Your task to perform on an android device: See recent photos Image 0: 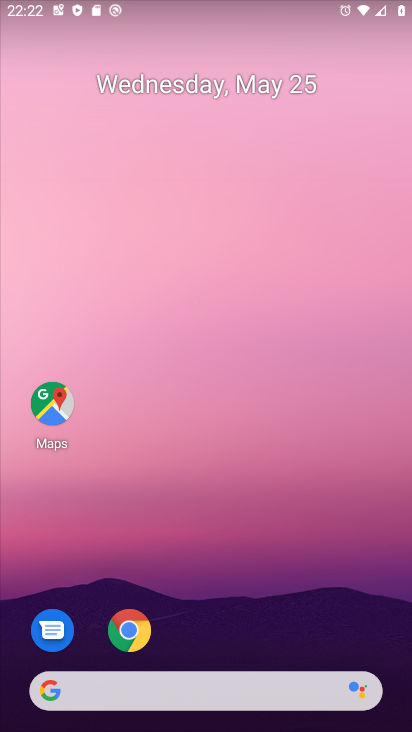
Step 0: drag from (227, 641) to (239, 138)
Your task to perform on an android device: See recent photos Image 1: 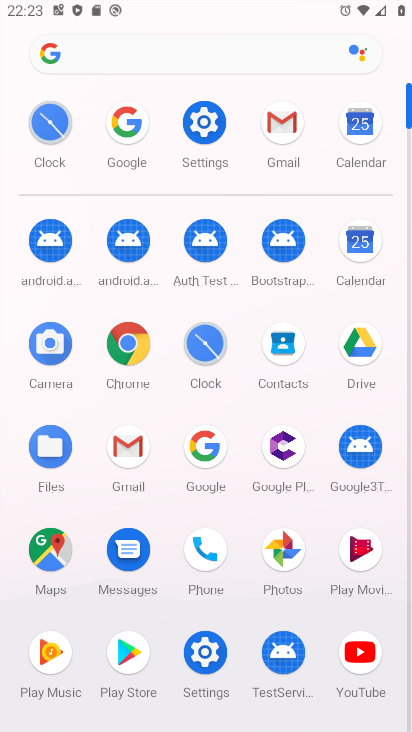
Step 1: click (295, 543)
Your task to perform on an android device: See recent photos Image 2: 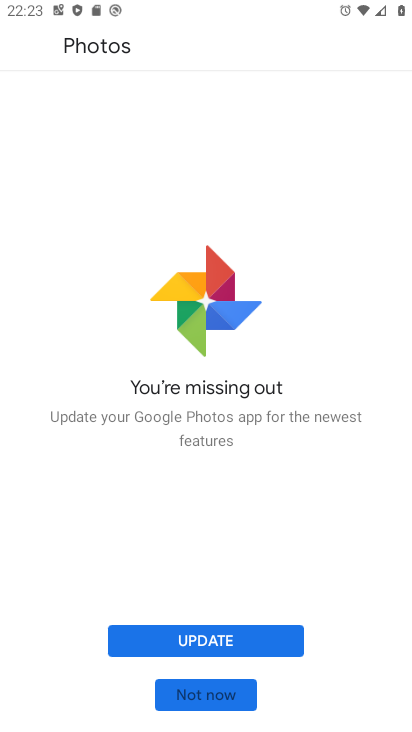
Step 2: click (209, 685)
Your task to perform on an android device: See recent photos Image 3: 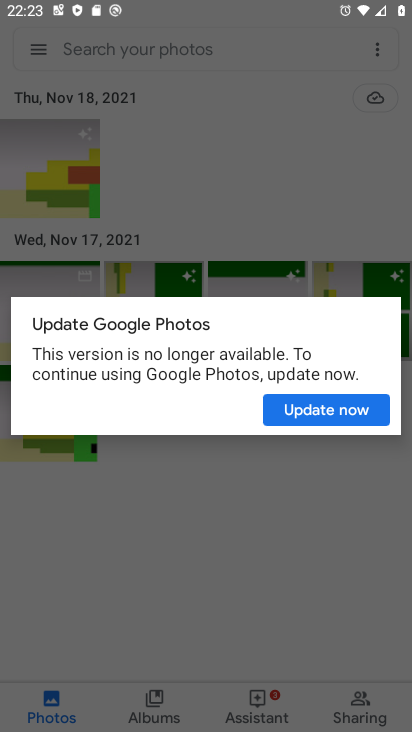
Step 3: click (154, 541)
Your task to perform on an android device: See recent photos Image 4: 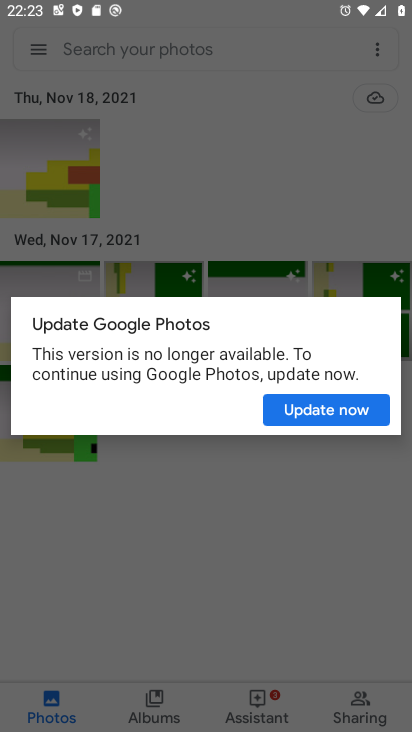
Step 4: click (295, 398)
Your task to perform on an android device: See recent photos Image 5: 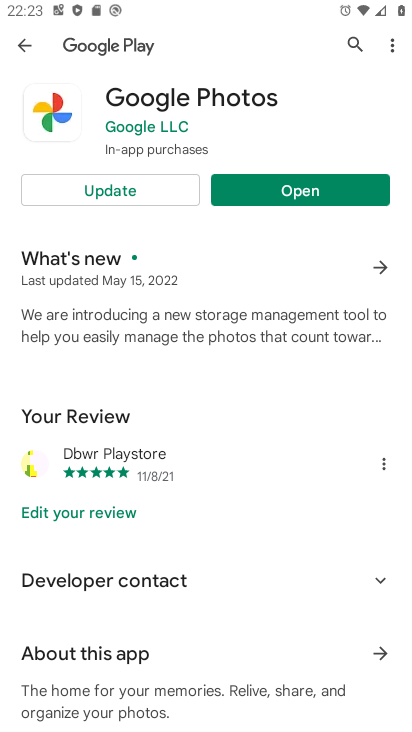
Step 5: click (283, 185)
Your task to perform on an android device: See recent photos Image 6: 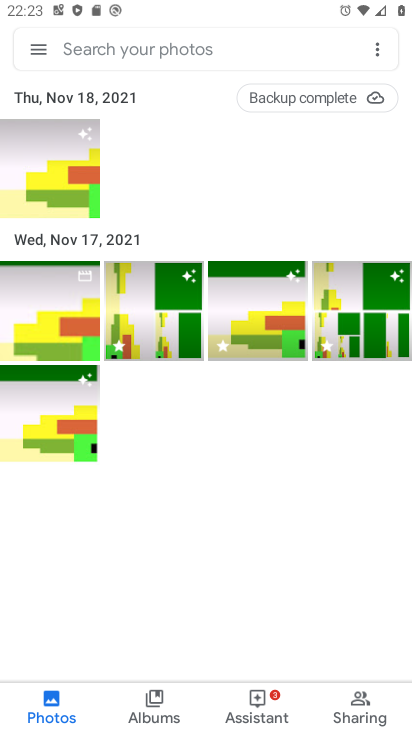
Step 6: click (47, 689)
Your task to perform on an android device: See recent photos Image 7: 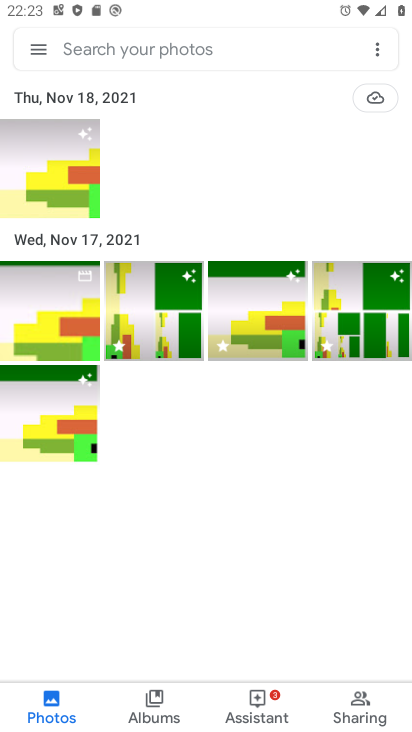
Step 7: task complete